Your task to perform on an android device: turn on improve location accuracy Image 0: 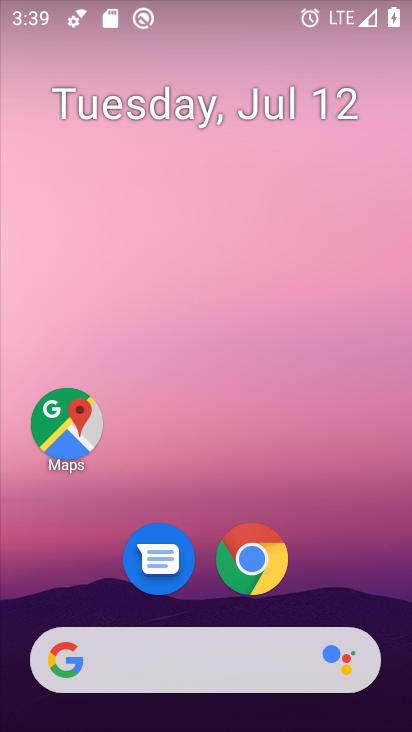
Step 0: drag from (395, 567) to (383, 258)
Your task to perform on an android device: turn on improve location accuracy Image 1: 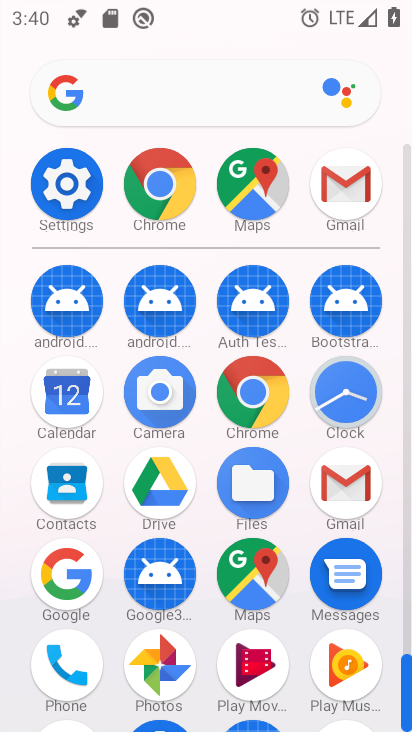
Step 1: click (67, 198)
Your task to perform on an android device: turn on improve location accuracy Image 2: 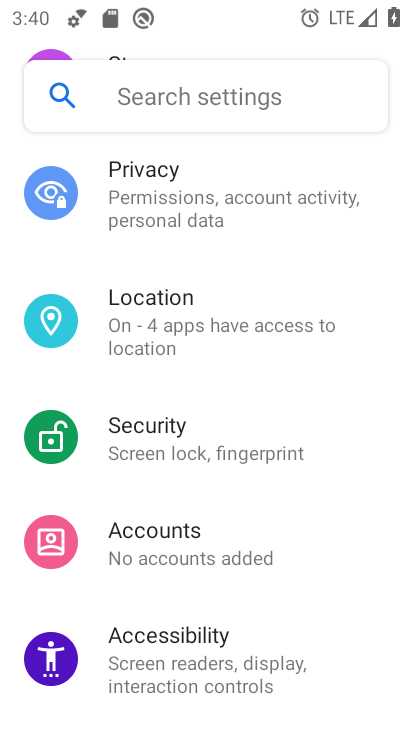
Step 2: drag from (357, 273) to (353, 410)
Your task to perform on an android device: turn on improve location accuracy Image 3: 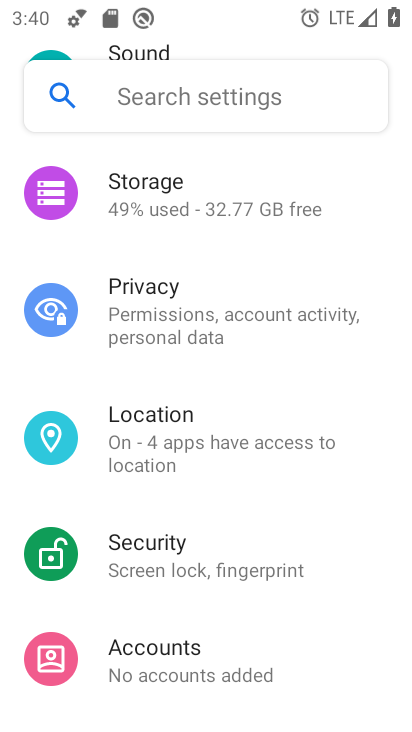
Step 3: drag from (370, 296) to (357, 394)
Your task to perform on an android device: turn on improve location accuracy Image 4: 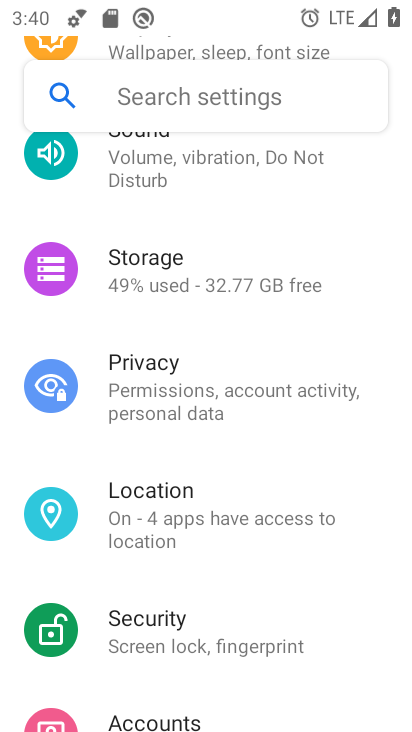
Step 4: drag from (355, 284) to (337, 397)
Your task to perform on an android device: turn on improve location accuracy Image 5: 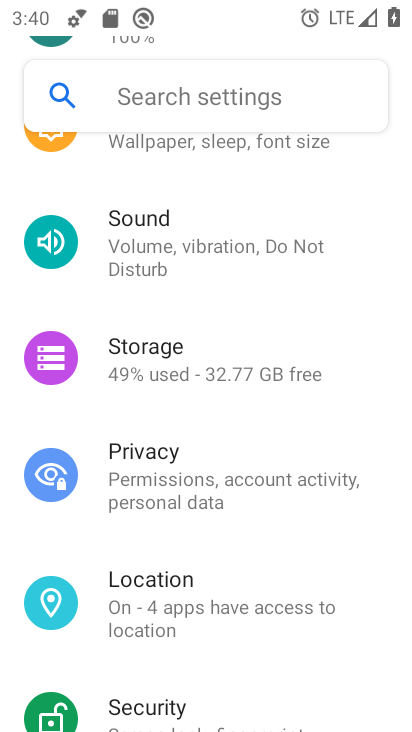
Step 5: drag from (358, 231) to (357, 352)
Your task to perform on an android device: turn on improve location accuracy Image 6: 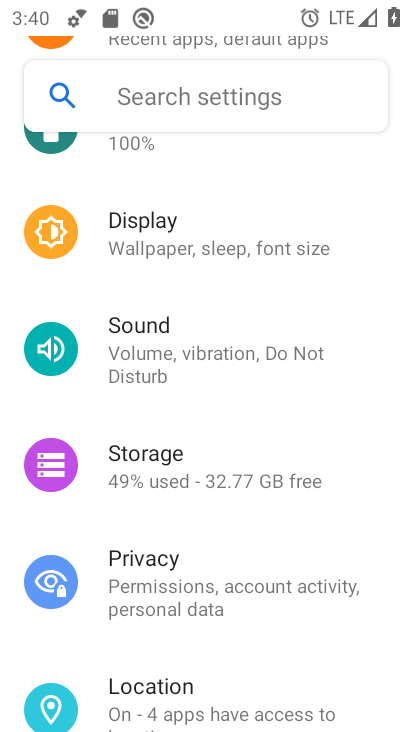
Step 6: drag from (341, 405) to (348, 215)
Your task to perform on an android device: turn on improve location accuracy Image 7: 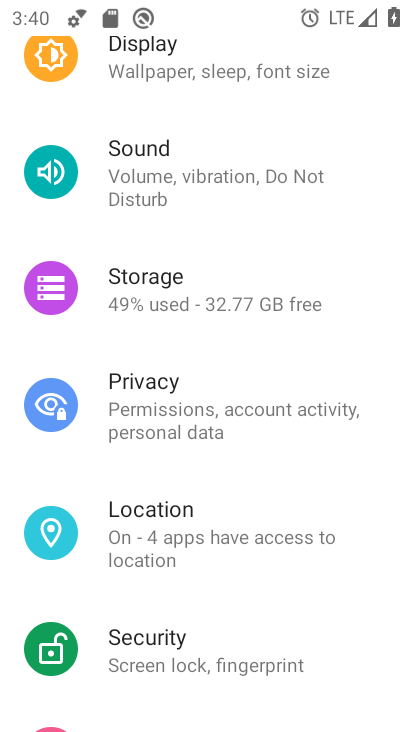
Step 7: drag from (331, 441) to (339, 259)
Your task to perform on an android device: turn on improve location accuracy Image 8: 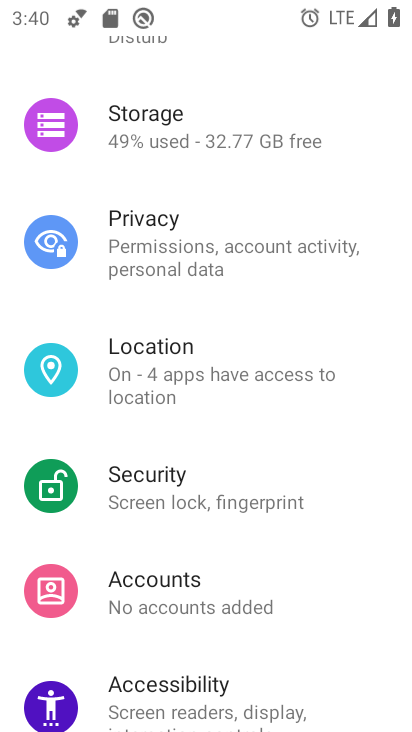
Step 8: click (325, 388)
Your task to perform on an android device: turn on improve location accuracy Image 9: 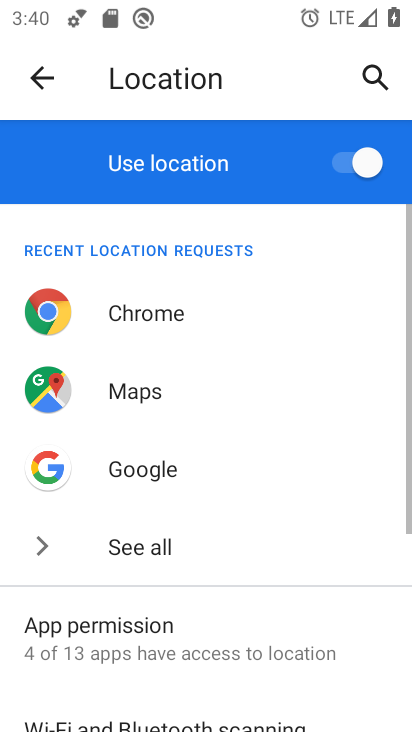
Step 9: drag from (329, 478) to (339, 349)
Your task to perform on an android device: turn on improve location accuracy Image 10: 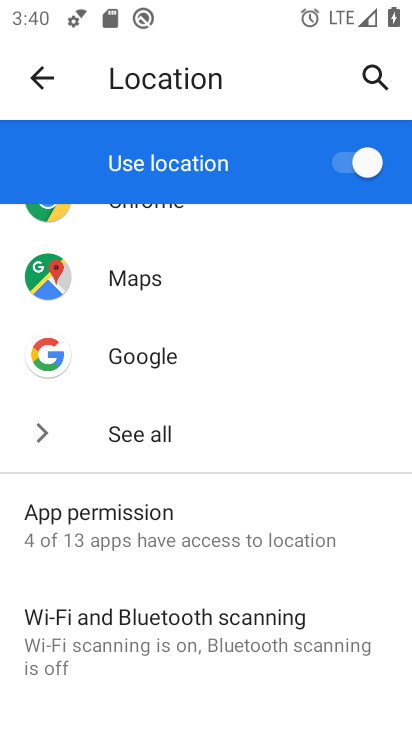
Step 10: drag from (343, 515) to (345, 368)
Your task to perform on an android device: turn on improve location accuracy Image 11: 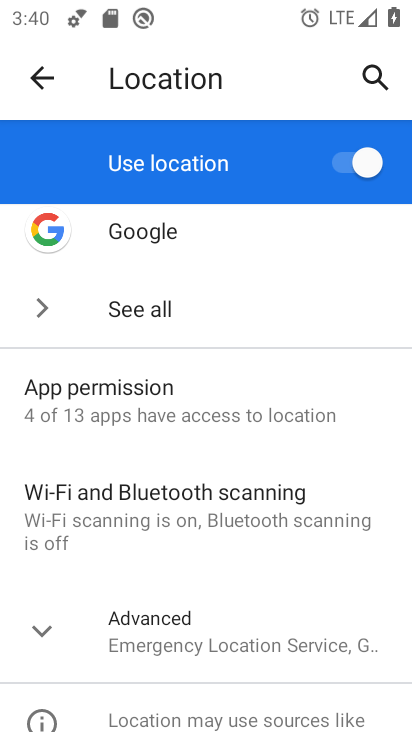
Step 11: click (332, 615)
Your task to perform on an android device: turn on improve location accuracy Image 12: 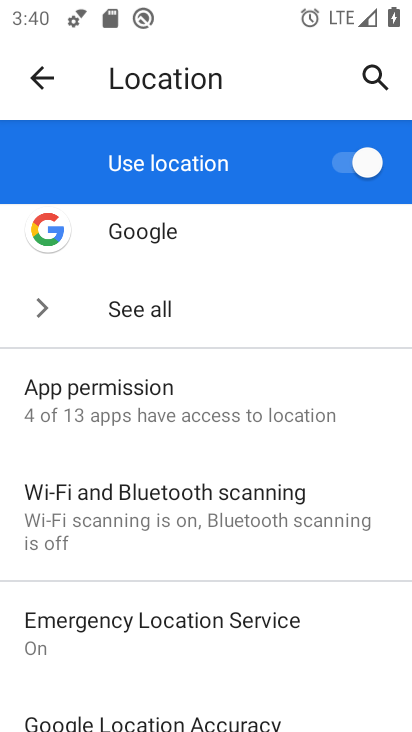
Step 12: drag from (342, 646) to (340, 539)
Your task to perform on an android device: turn on improve location accuracy Image 13: 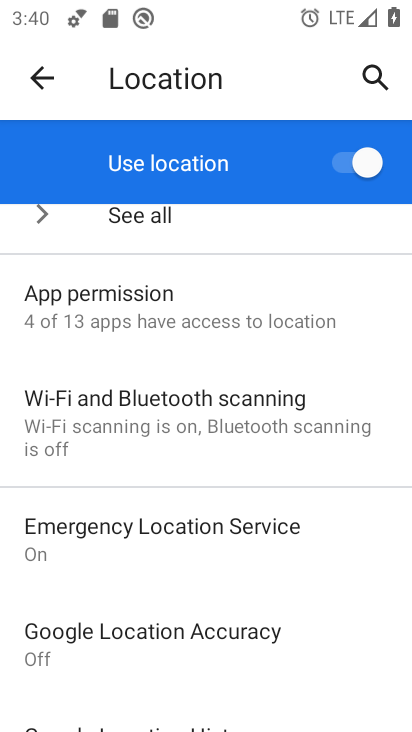
Step 13: drag from (338, 605) to (343, 479)
Your task to perform on an android device: turn on improve location accuracy Image 14: 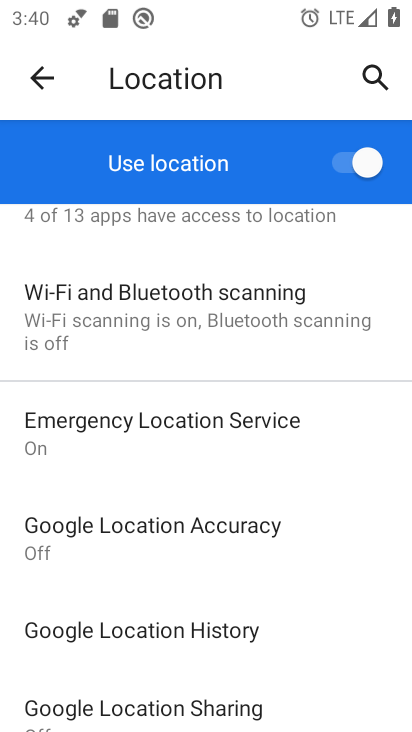
Step 14: click (249, 553)
Your task to perform on an android device: turn on improve location accuracy Image 15: 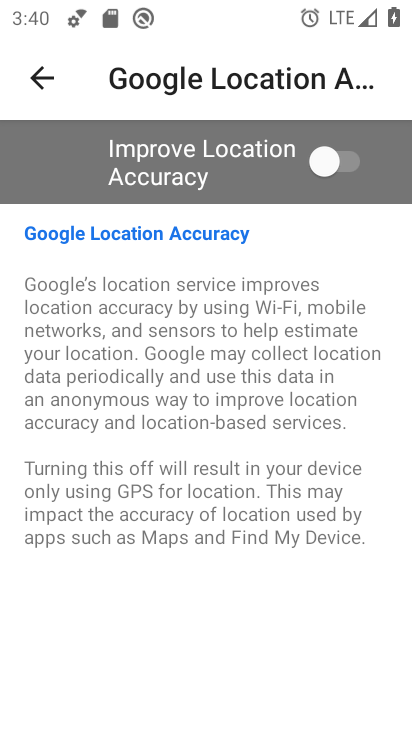
Step 15: click (335, 166)
Your task to perform on an android device: turn on improve location accuracy Image 16: 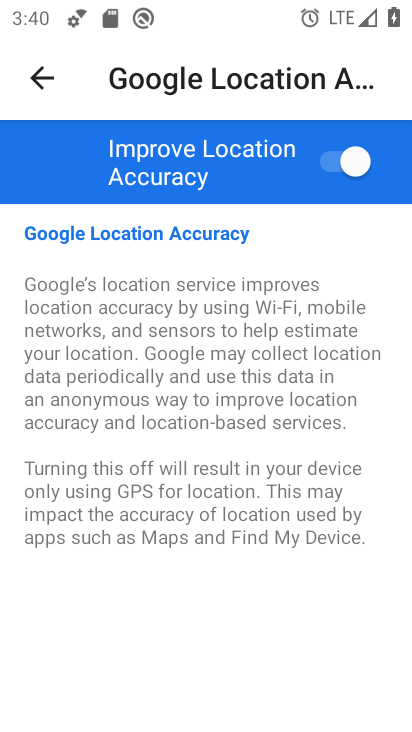
Step 16: task complete